Your task to perform on an android device: add a contact Image 0: 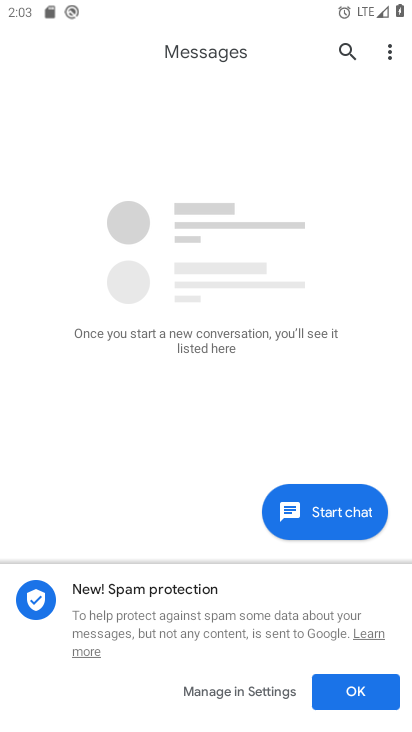
Step 0: press home button
Your task to perform on an android device: add a contact Image 1: 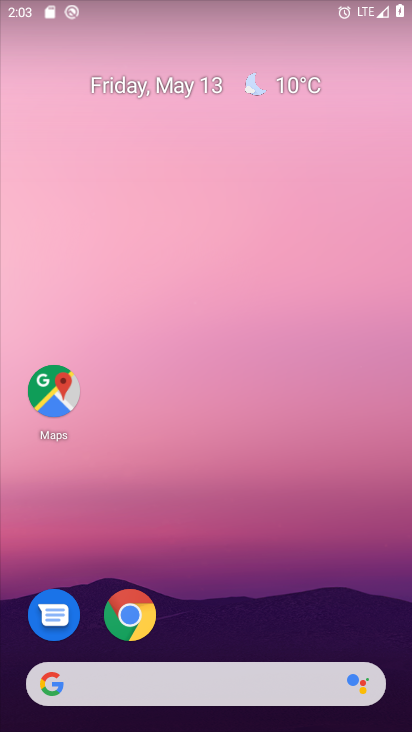
Step 1: drag from (233, 556) to (246, 46)
Your task to perform on an android device: add a contact Image 2: 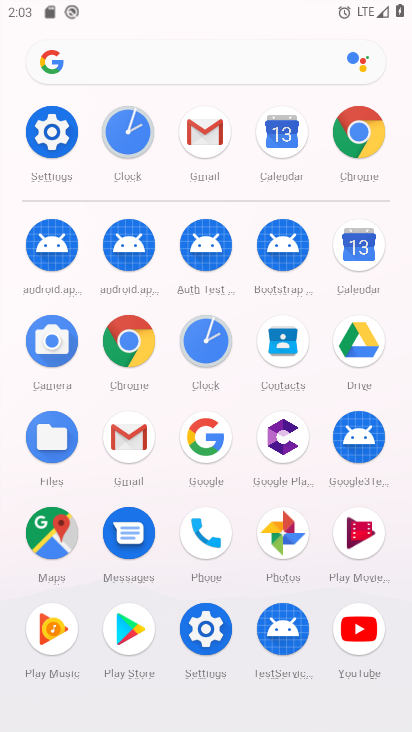
Step 2: click (277, 341)
Your task to perform on an android device: add a contact Image 3: 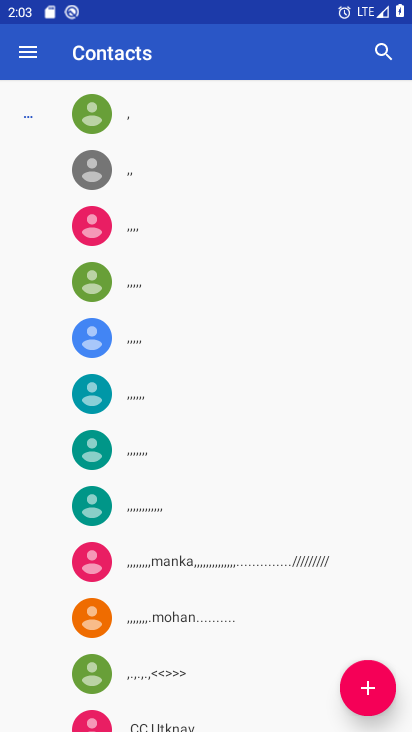
Step 3: click (366, 687)
Your task to perform on an android device: add a contact Image 4: 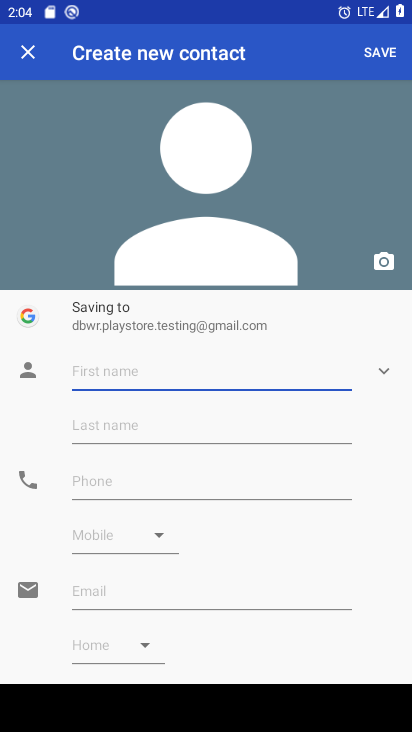
Step 4: type "Acharya Shradhanand Saraswati"
Your task to perform on an android device: add a contact Image 5: 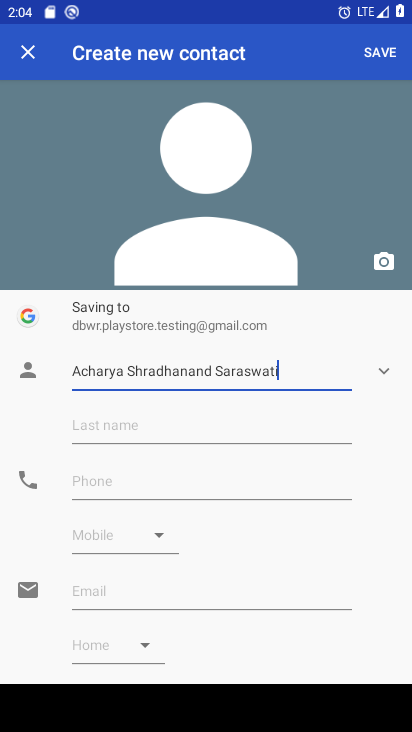
Step 5: click (291, 489)
Your task to perform on an android device: add a contact Image 6: 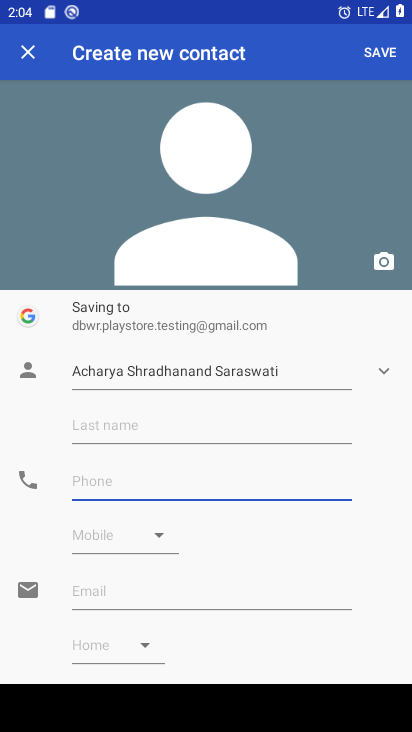
Step 6: type "919977553311"
Your task to perform on an android device: add a contact Image 7: 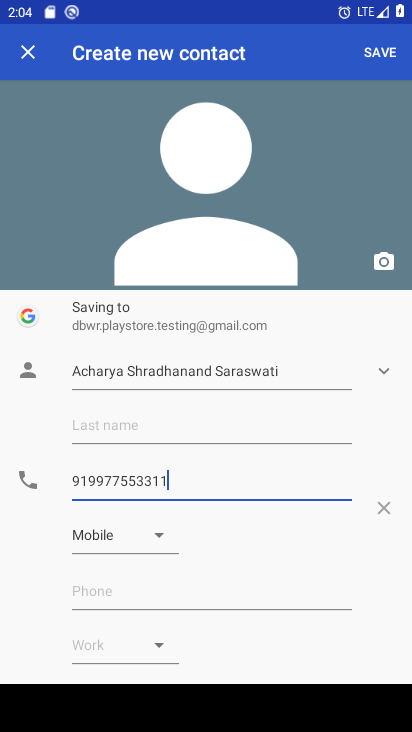
Step 7: click (377, 52)
Your task to perform on an android device: add a contact Image 8: 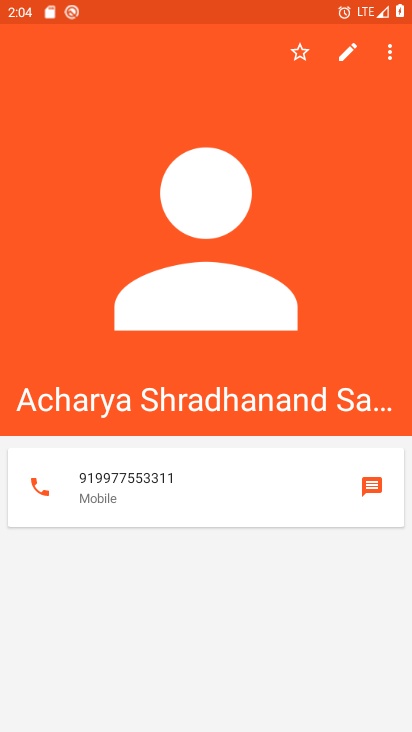
Step 8: task complete